Your task to perform on an android device: Open the Play Movies app and select the watchlist tab. Image 0: 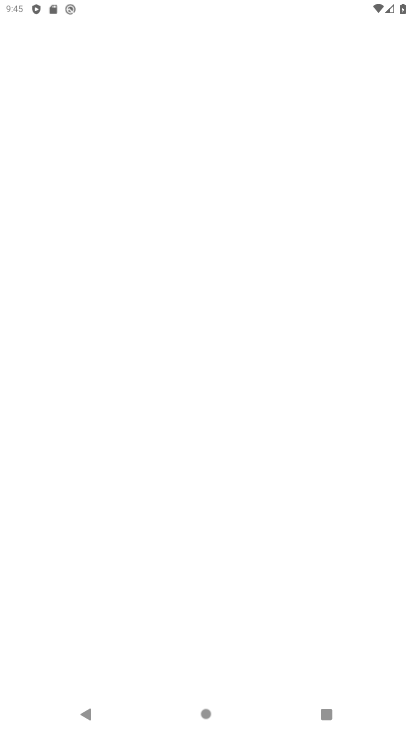
Step 0: drag from (37, 711) to (212, 124)
Your task to perform on an android device: Open the Play Movies app and select the watchlist tab. Image 1: 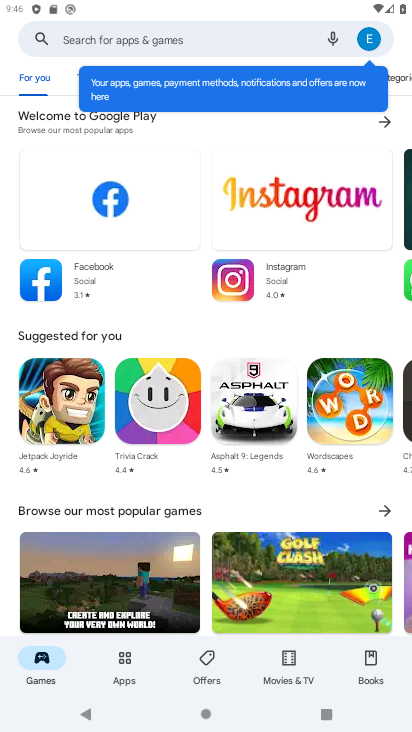
Step 1: press home button
Your task to perform on an android device: Open the Play Movies app and select the watchlist tab. Image 2: 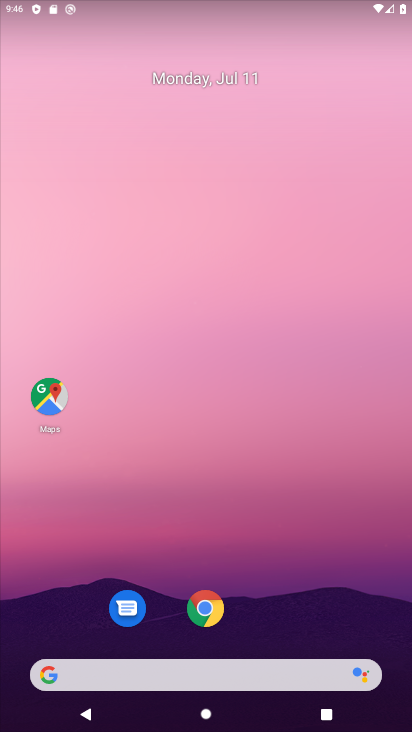
Step 2: drag from (16, 708) to (269, 15)
Your task to perform on an android device: Open the Play Movies app and select the watchlist tab. Image 3: 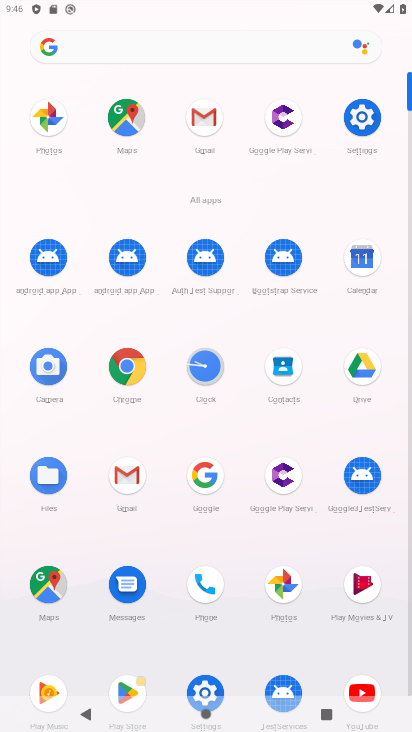
Step 3: click (359, 584)
Your task to perform on an android device: Open the Play Movies app and select the watchlist tab. Image 4: 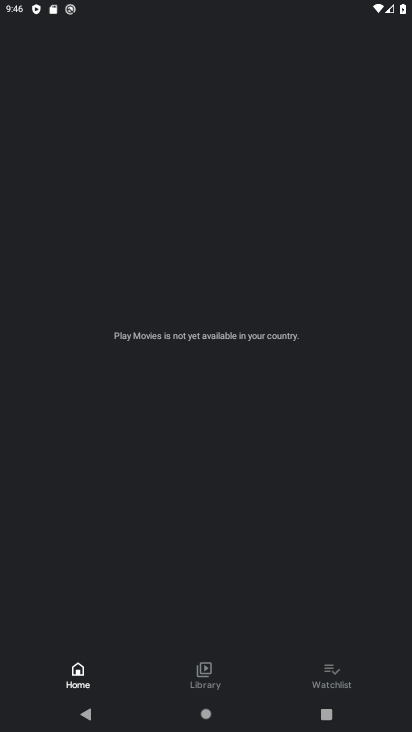
Step 4: click (332, 676)
Your task to perform on an android device: Open the Play Movies app and select the watchlist tab. Image 5: 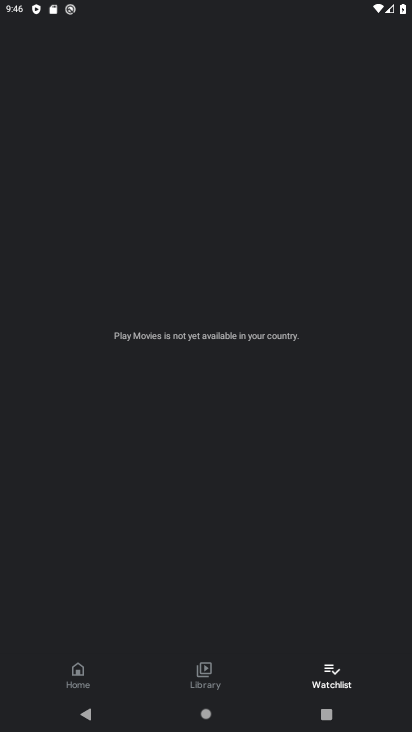
Step 5: task complete